Your task to perform on an android device: turn off sleep mode Image 0: 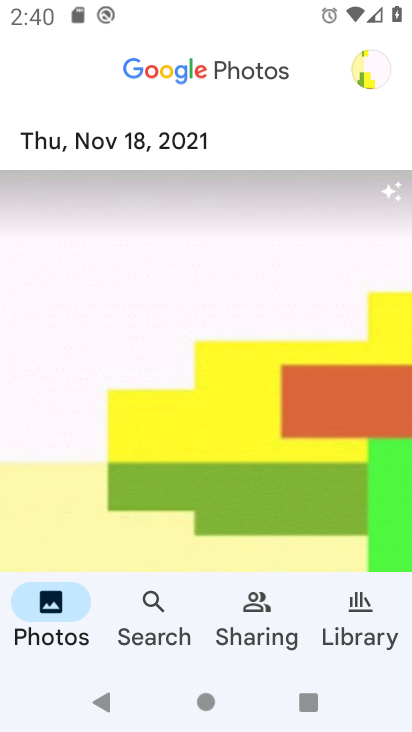
Step 0: press home button
Your task to perform on an android device: turn off sleep mode Image 1: 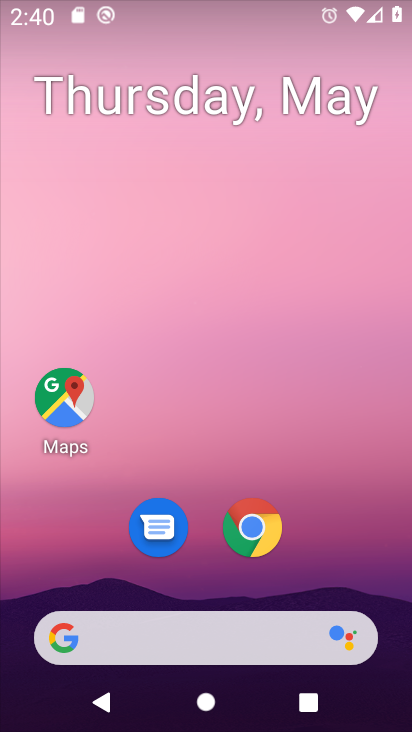
Step 1: drag from (325, 586) to (280, 42)
Your task to perform on an android device: turn off sleep mode Image 2: 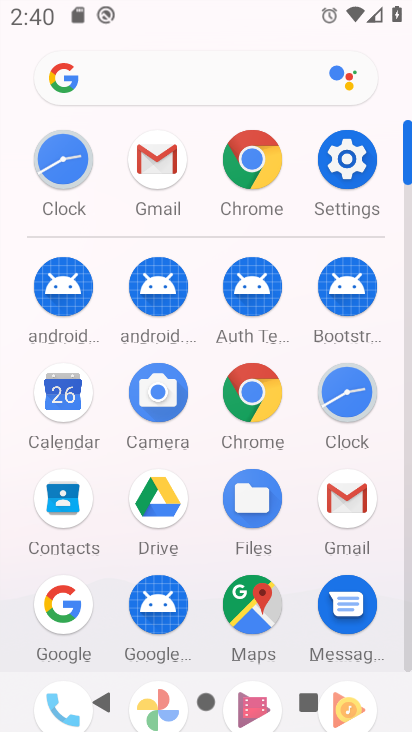
Step 2: click (335, 165)
Your task to perform on an android device: turn off sleep mode Image 3: 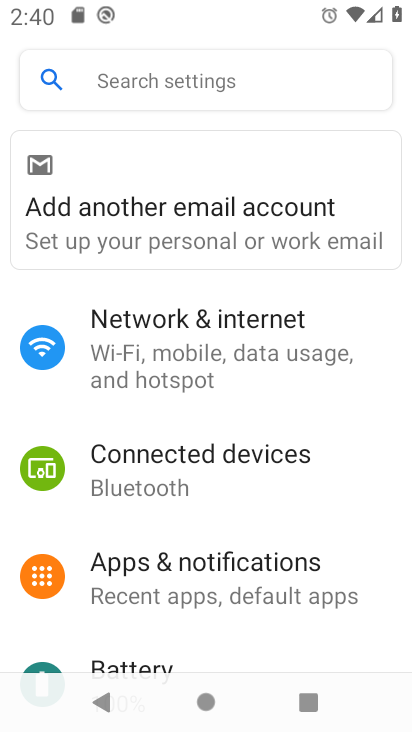
Step 3: drag from (307, 503) to (316, 55)
Your task to perform on an android device: turn off sleep mode Image 4: 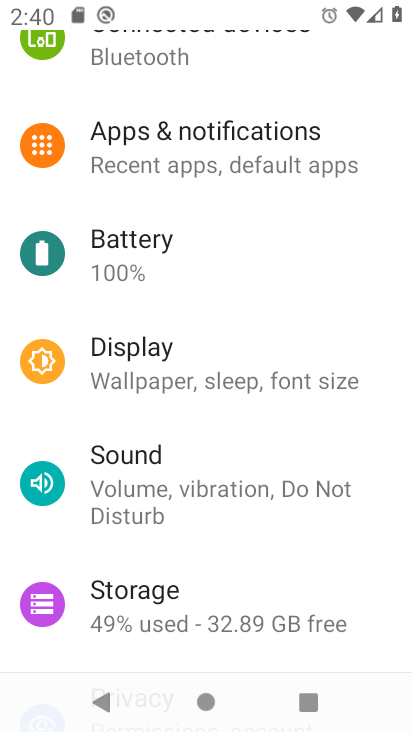
Step 4: drag from (279, 517) to (275, 246)
Your task to perform on an android device: turn off sleep mode Image 5: 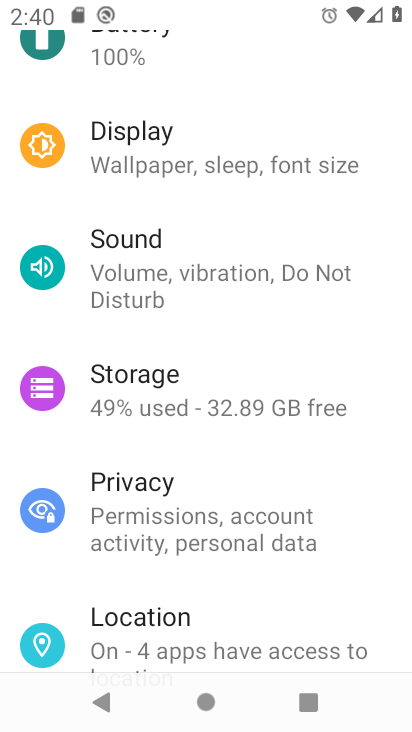
Step 5: click (200, 147)
Your task to perform on an android device: turn off sleep mode Image 6: 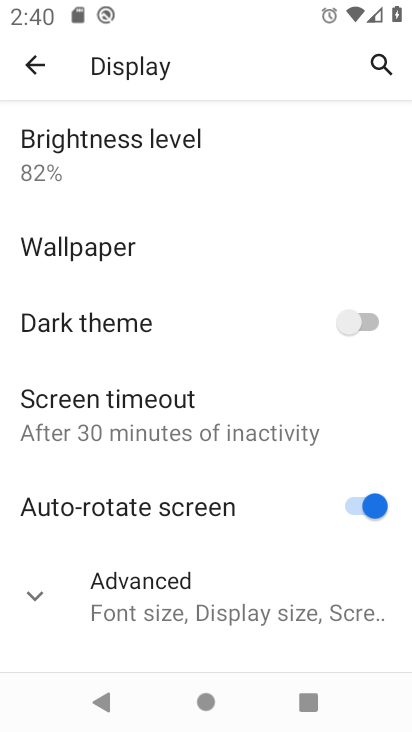
Step 6: task complete